Your task to perform on an android device: delete the emails in spam in the gmail app Image 0: 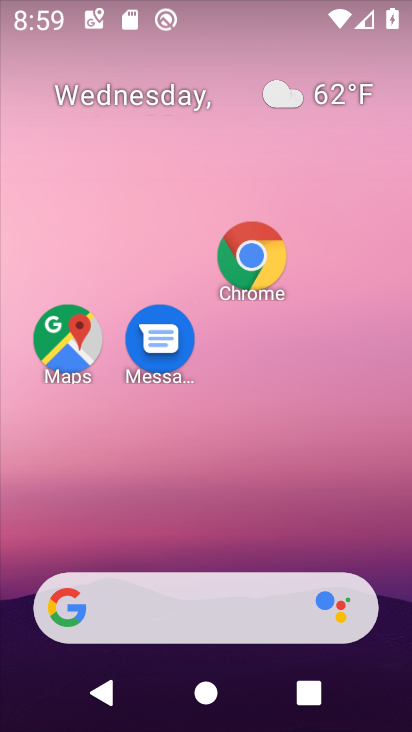
Step 0: drag from (297, 458) to (229, 96)
Your task to perform on an android device: delete the emails in spam in the gmail app Image 1: 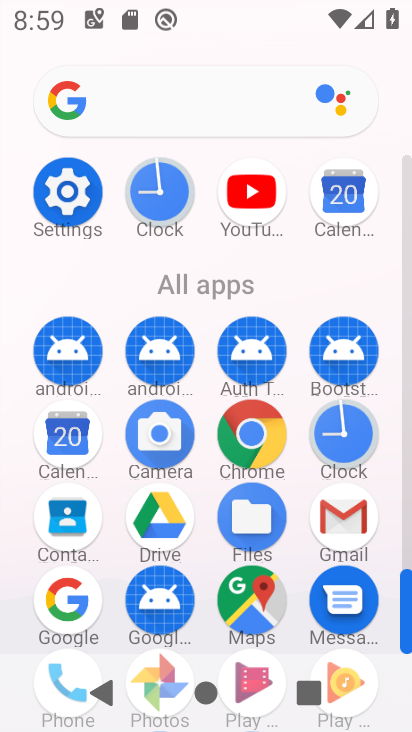
Step 1: click (332, 509)
Your task to perform on an android device: delete the emails in spam in the gmail app Image 2: 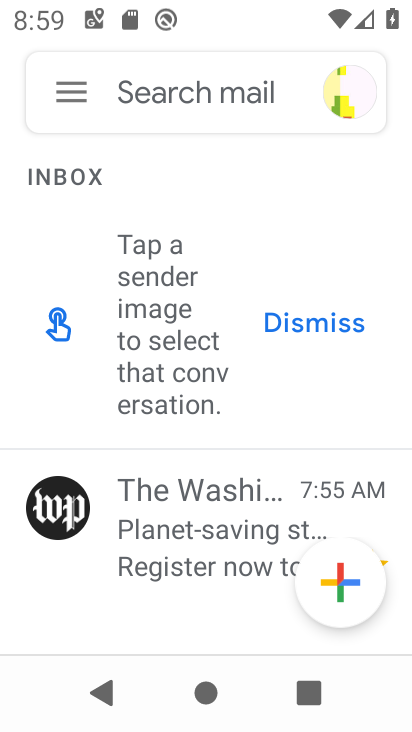
Step 2: click (73, 94)
Your task to perform on an android device: delete the emails in spam in the gmail app Image 3: 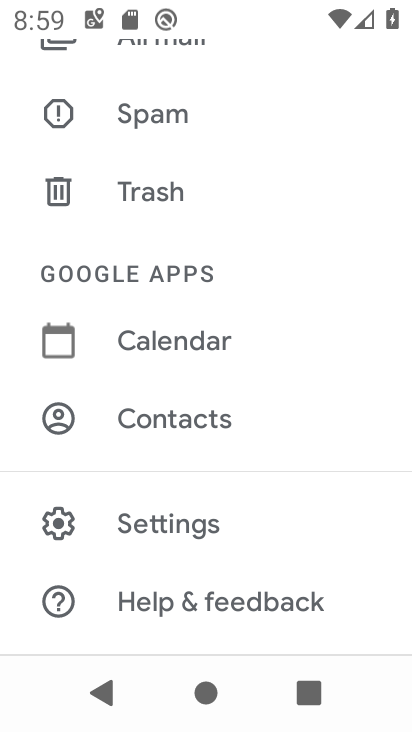
Step 3: drag from (203, 478) to (181, 402)
Your task to perform on an android device: delete the emails in spam in the gmail app Image 4: 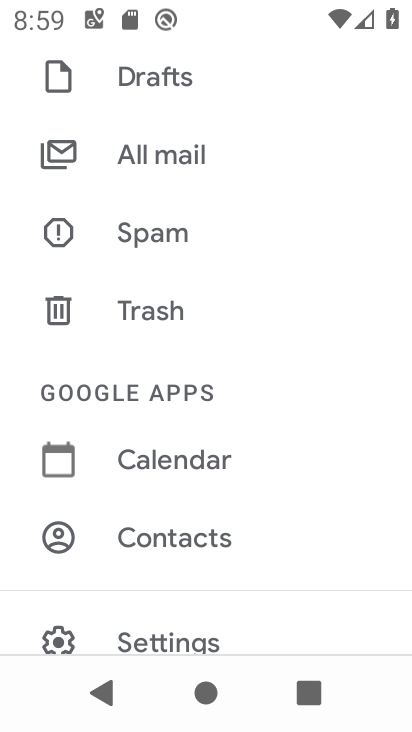
Step 4: click (151, 248)
Your task to perform on an android device: delete the emails in spam in the gmail app Image 5: 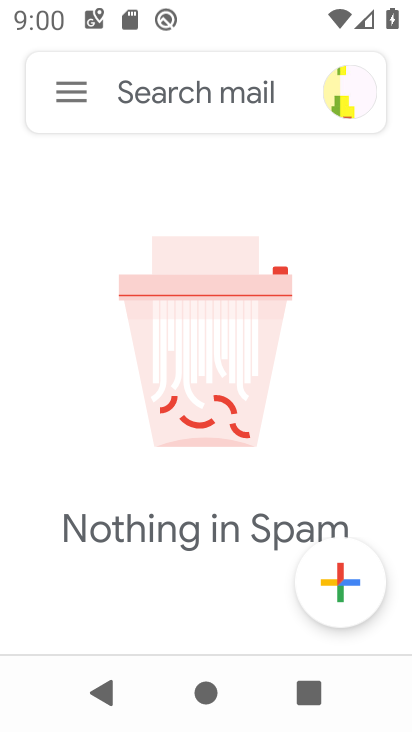
Step 5: task complete